Your task to perform on an android device: toggle location history Image 0: 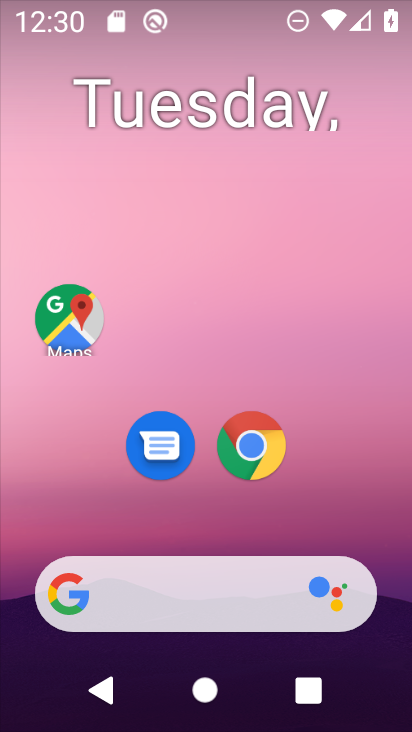
Step 0: drag from (387, 528) to (365, 238)
Your task to perform on an android device: toggle location history Image 1: 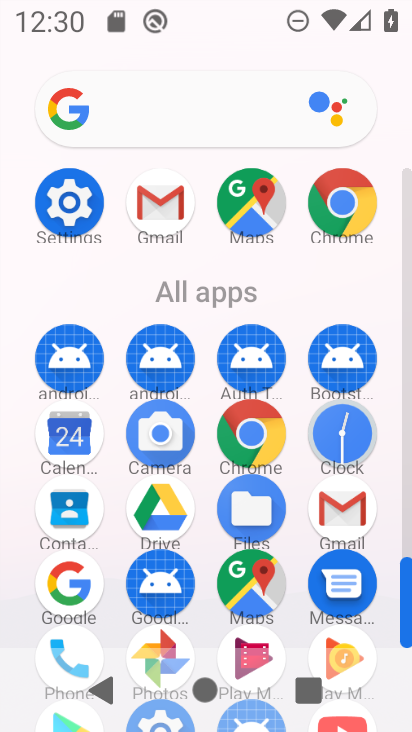
Step 1: click (82, 210)
Your task to perform on an android device: toggle location history Image 2: 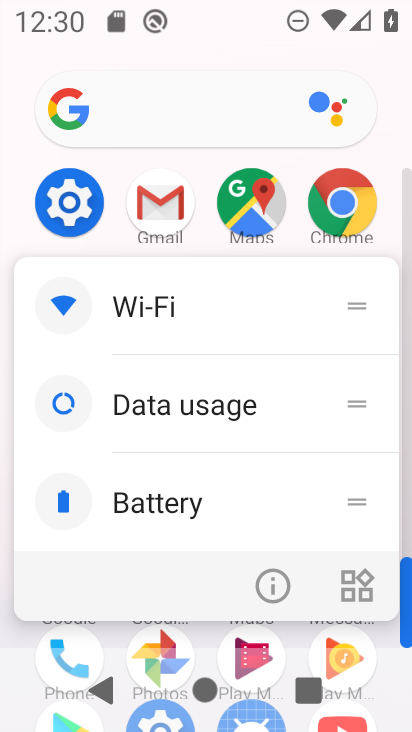
Step 2: click (82, 210)
Your task to perform on an android device: toggle location history Image 3: 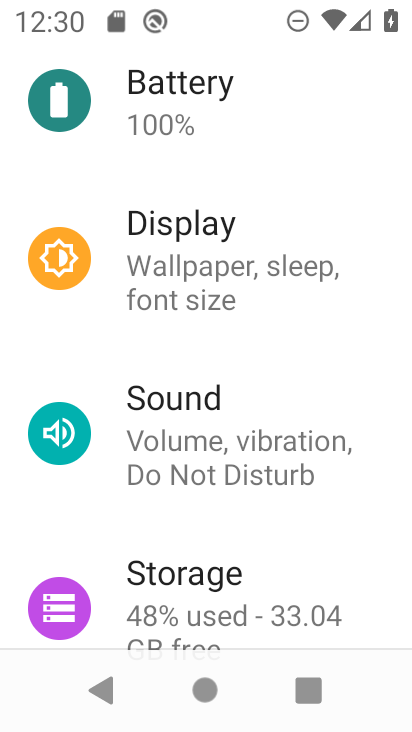
Step 3: drag from (362, 211) to (375, 395)
Your task to perform on an android device: toggle location history Image 4: 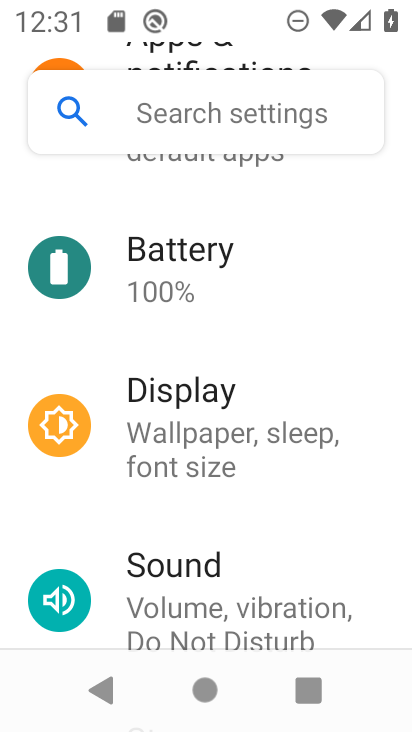
Step 4: drag from (364, 530) to (355, 338)
Your task to perform on an android device: toggle location history Image 5: 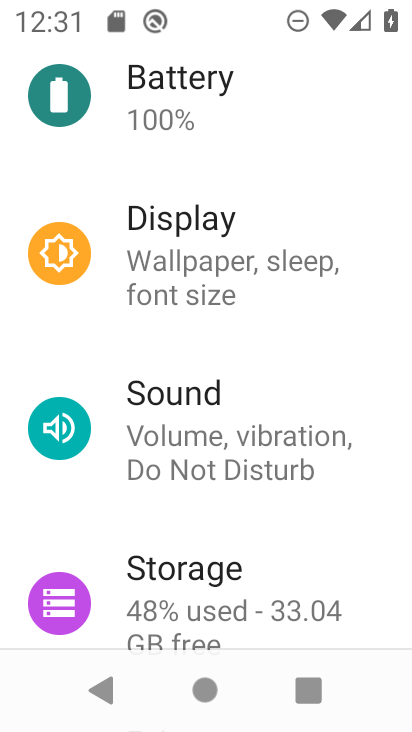
Step 5: drag from (352, 517) to (367, 374)
Your task to perform on an android device: toggle location history Image 6: 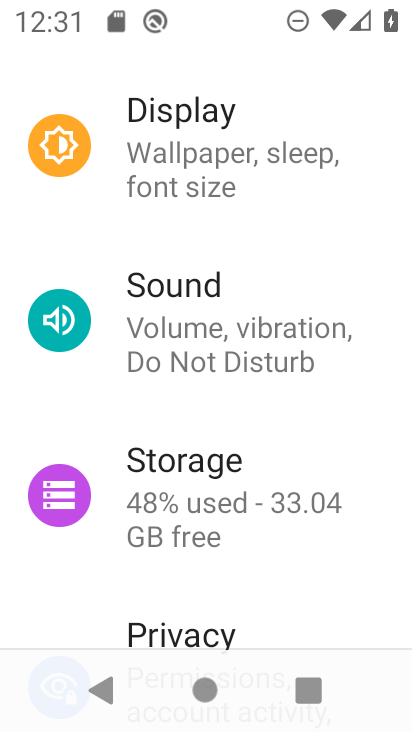
Step 6: drag from (359, 573) to (360, 412)
Your task to perform on an android device: toggle location history Image 7: 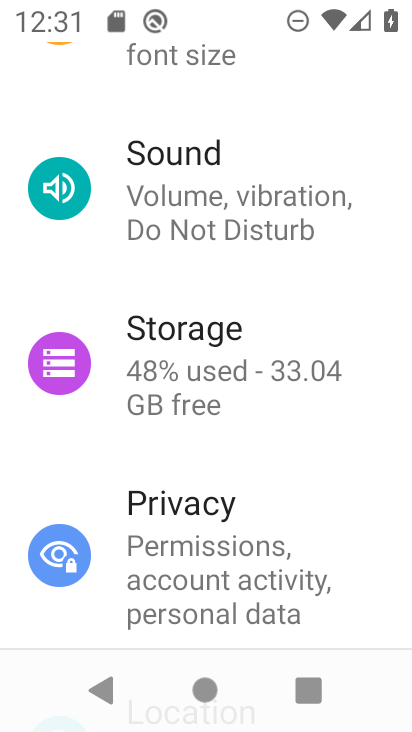
Step 7: drag from (374, 511) to (392, 345)
Your task to perform on an android device: toggle location history Image 8: 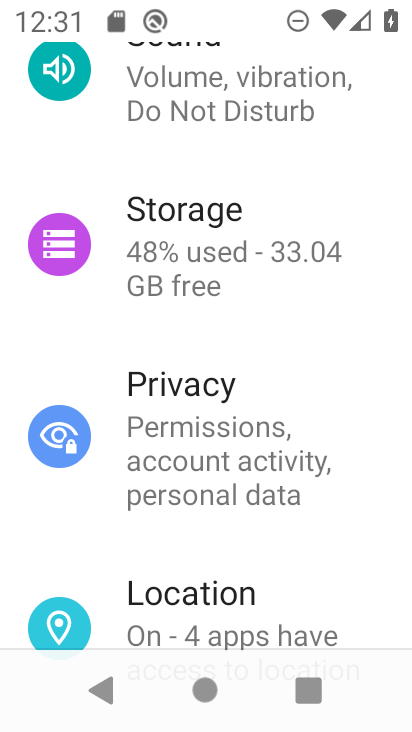
Step 8: drag from (371, 553) to (382, 370)
Your task to perform on an android device: toggle location history Image 9: 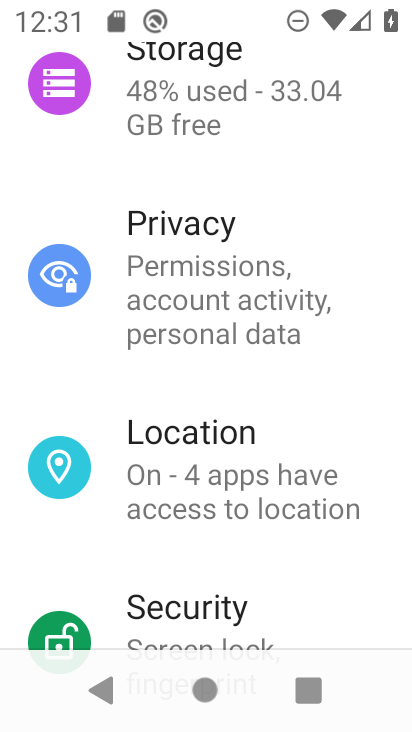
Step 9: drag from (353, 611) to (357, 378)
Your task to perform on an android device: toggle location history Image 10: 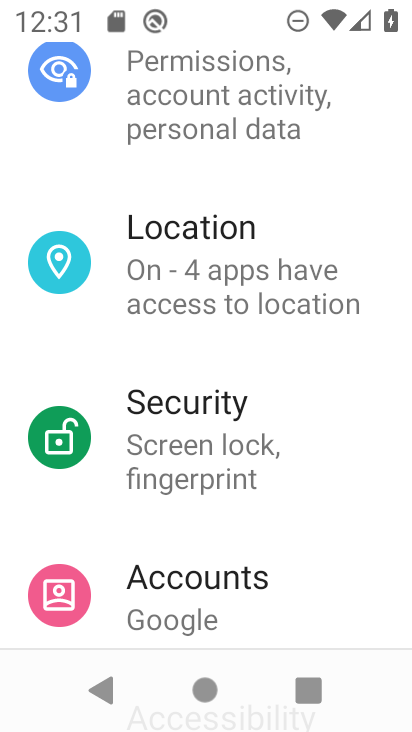
Step 10: drag from (372, 549) to (382, 355)
Your task to perform on an android device: toggle location history Image 11: 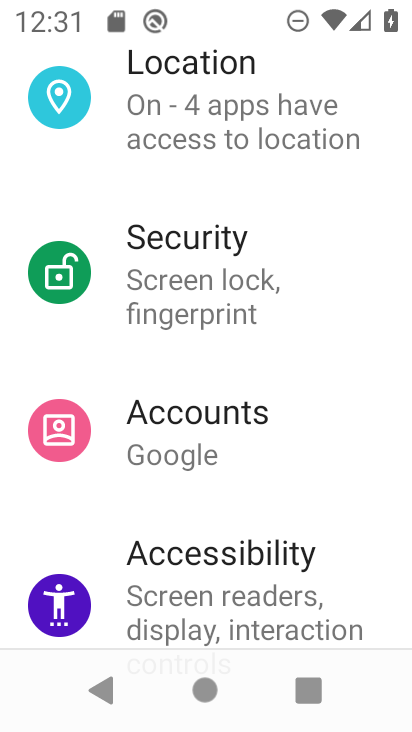
Step 11: drag from (367, 567) to (370, 368)
Your task to perform on an android device: toggle location history Image 12: 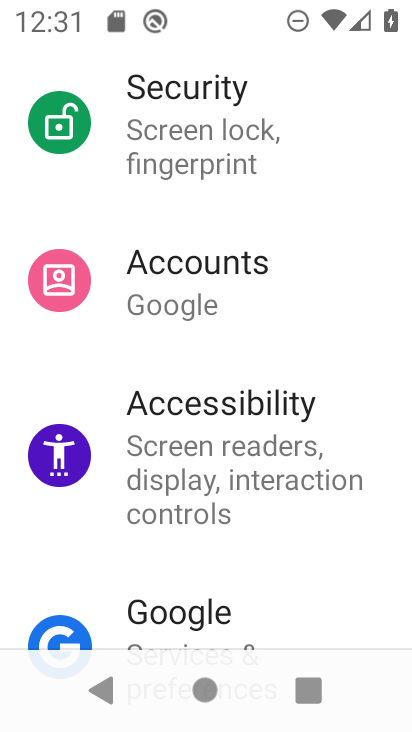
Step 12: drag from (345, 545) to (366, 366)
Your task to perform on an android device: toggle location history Image 13: 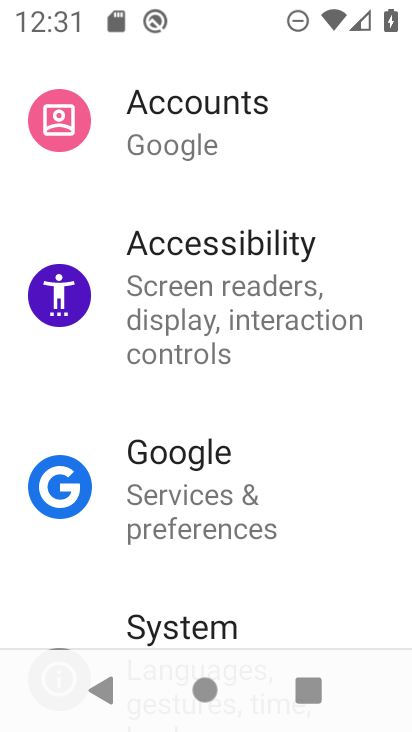
Step 13: drag from (343, 500) to (356, 343)
Your task to perform on an android device: toggle location history Image 14: 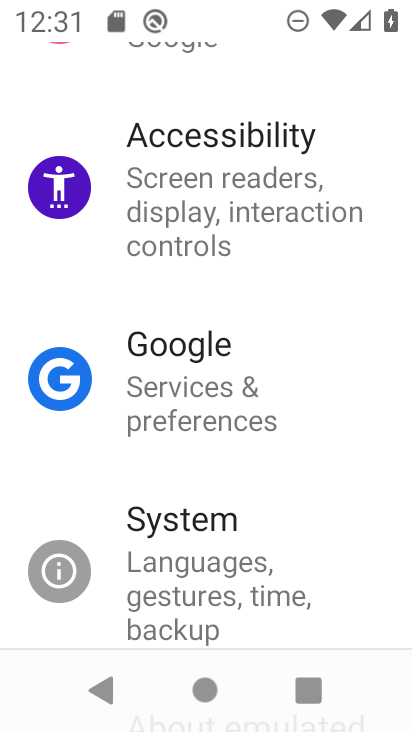
Step 14: drag from (341, 556) to (353, 400)
Your task to perform on an android device: toggle location history Image 15: 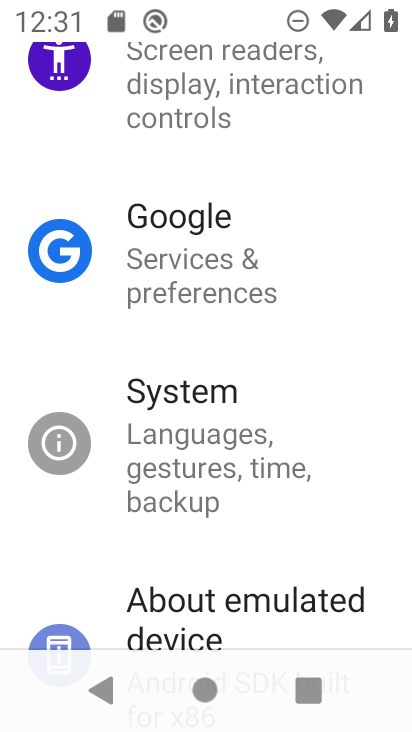
Step 15: drag from (343, 500) to (349, 335)
Your task to perform on an android device: toggle location history Image 16: 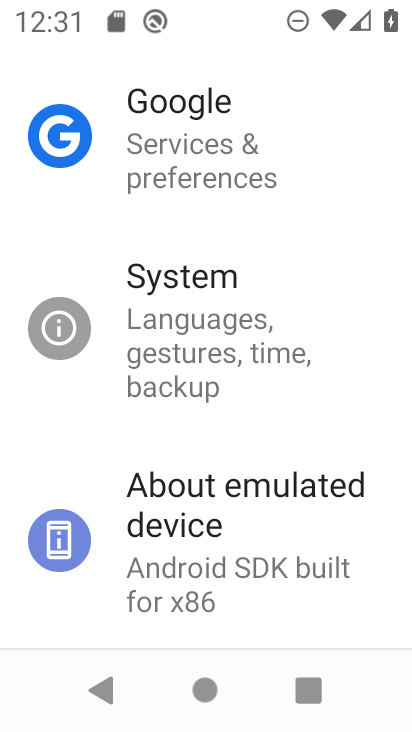
Step 16: drag from (353, 596) to (356, 350)
Your task to perform on an android device: toggle location history Image 17: 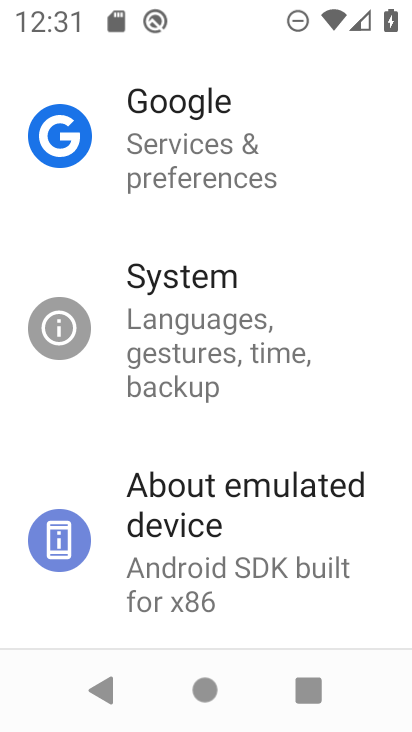
Step 17: drag from (332, 592) to (346, 332)
Your task to perform on an android device: toggle location history Image 18: 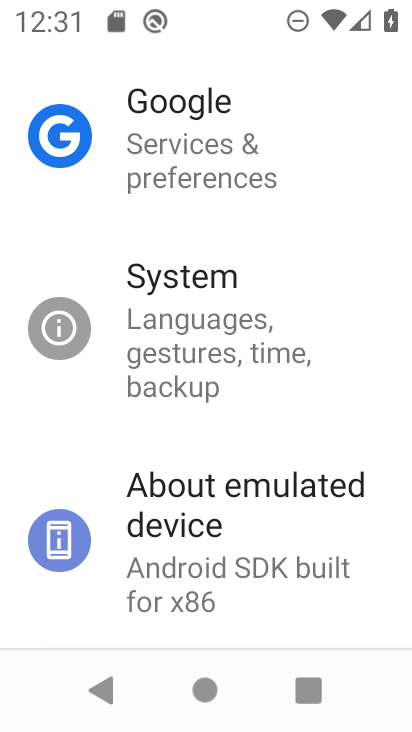
Step 18: drag from (360, 256) to (333, 471)
Your task to perform on an android device: toggle location history Image 19: 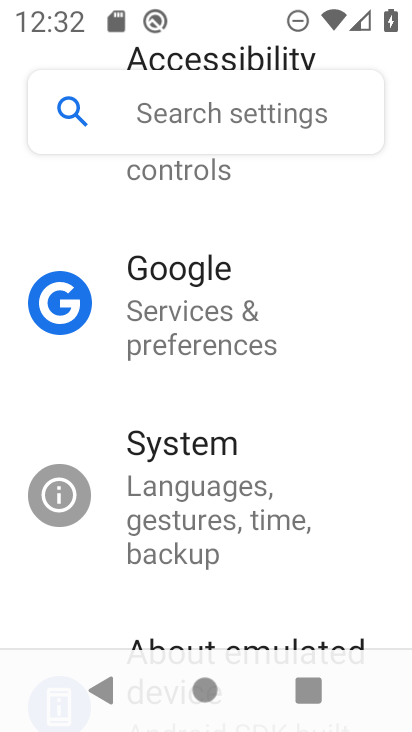
Step 19: drag from (342, 251) to (345, 456)
Your task to perform on an android device: toggle location history Image 20: 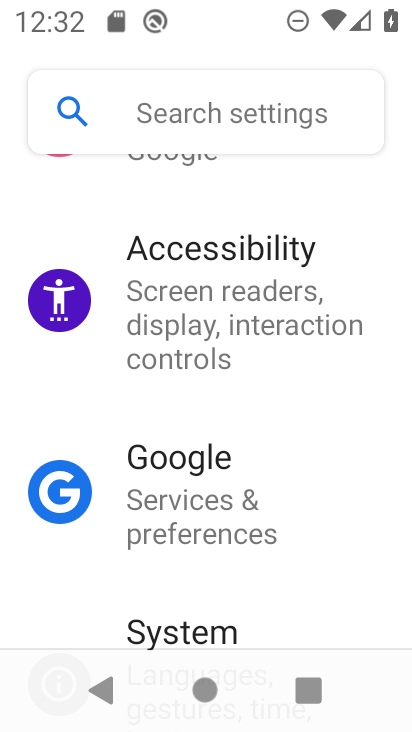
Step 20: drag from (383, 253) to (378, 450)
Your task to perform on an android device: toggle location history Image 21: 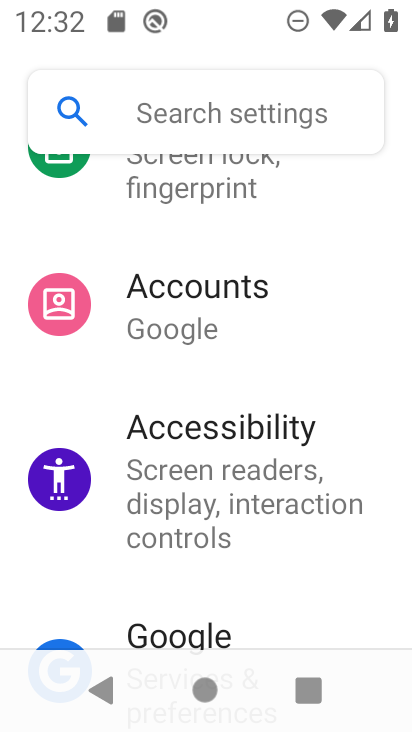
Step 21: drag from (381, 279) to (363, 474)
Your task to perform on an android device: toggle location history Image 22: 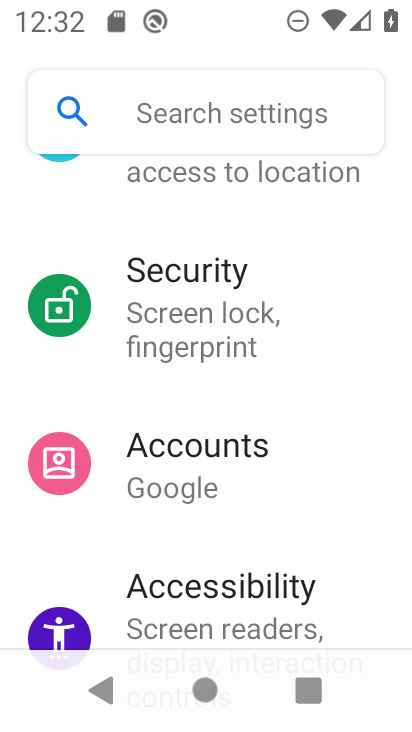
Step 22: drag from (370, 263) to (361, 453)
Your task to perform on an android device: toggle location history Image 23: 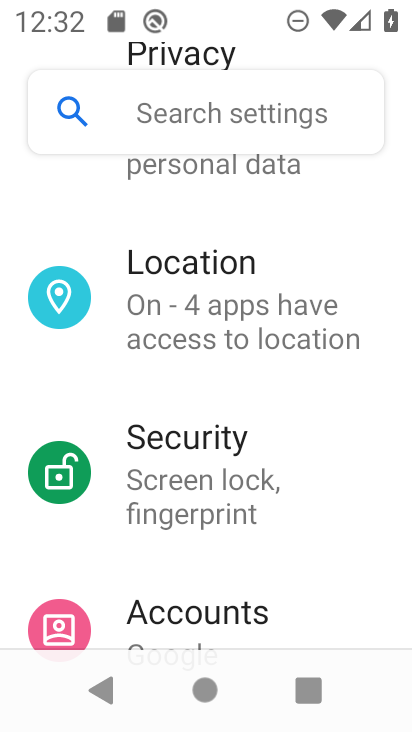
Step 23: drag from (373, 267) to (349, 491)
Your task to perform on an android device: toggle location history Image 24: 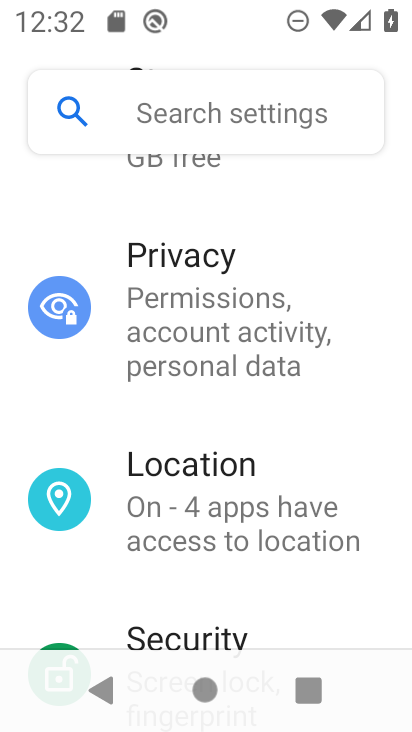
Step 24: drag from (381, 266) to (364, 473)
Your task to perform on an android device: toggle location history Image 25: 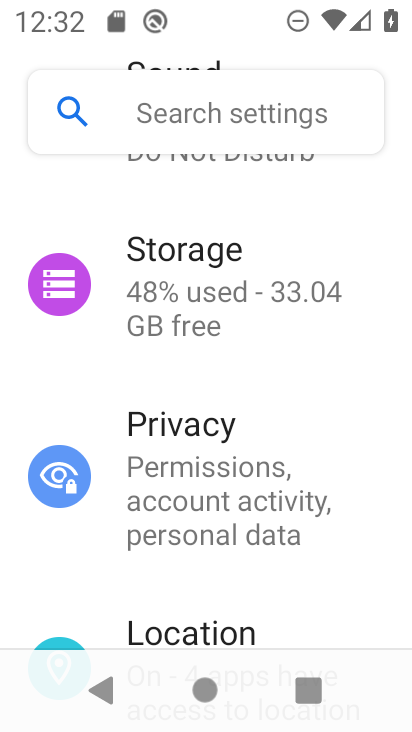
Step 25: drag from (353, 253) to (354, 464)
Your task to perform on an android device: toggle location history Image 26: 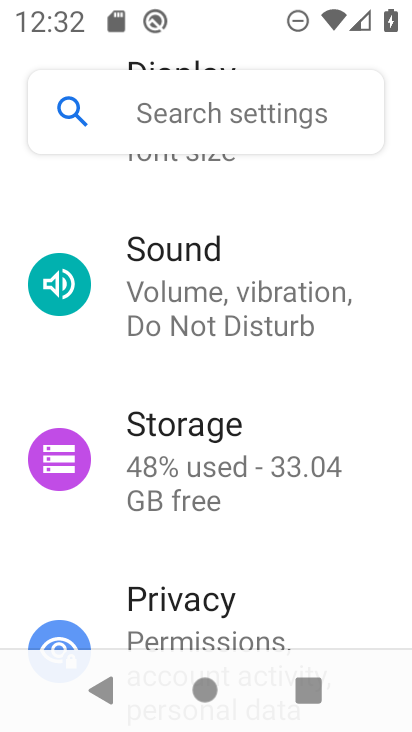
Step 26: drag from (353, 226) to (341, 413)
Your task to perform on an android device: toggle location history Image 27: 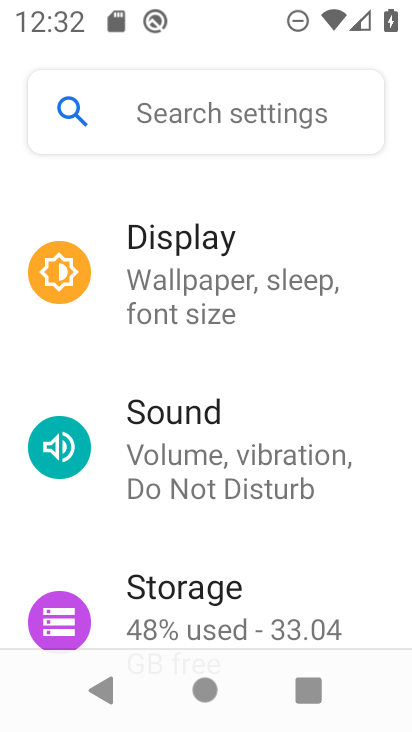
Step 27: drag from (349, 232) to (345, 424)
Your task to perform on an android device: toggle location history Image 28: 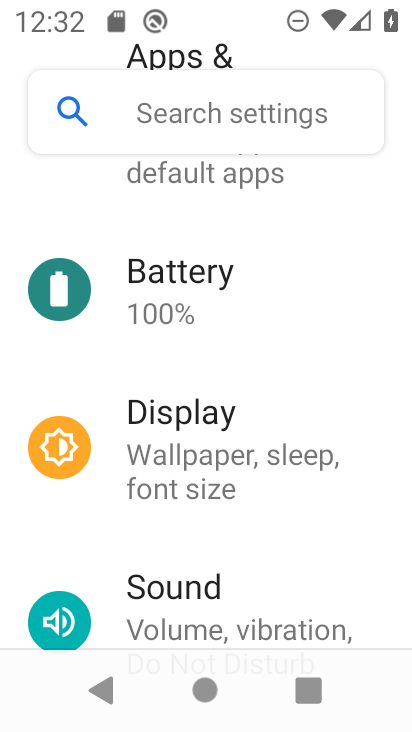
Step 28: drag from (356, 285) to (320, 509)
Your task to perform on an android device: toggle location history Image 29: 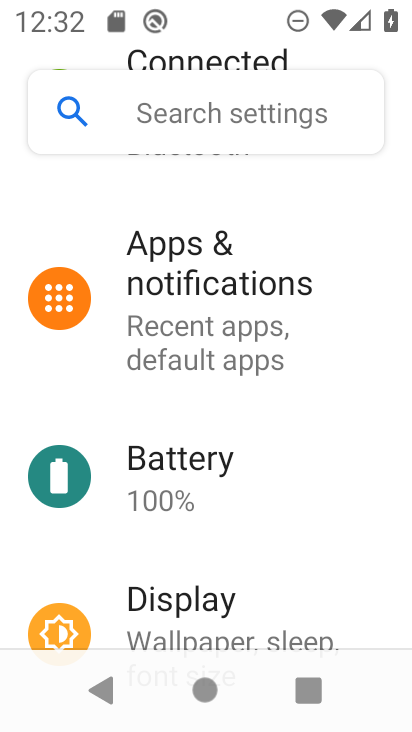
Step 29: drag from (373, 273) to (367, 460)
Your task to perform on an android device: toggle location history Image 30: 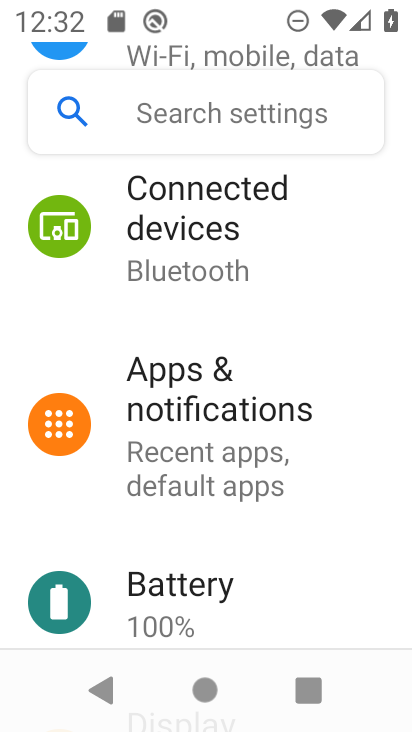
Step 30: drag from (341, 276) to (323, 463)
Your task to perform on an android device: toggle location history Image 31: 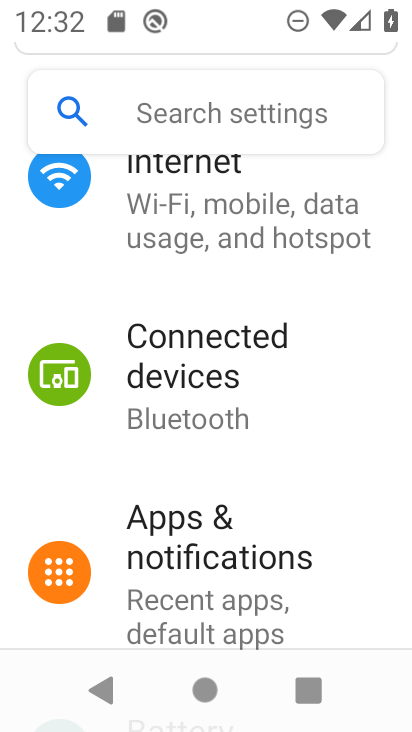
Step 31: drag from (342, 300) to (337, 476)
Your task to perform on an android device: toggle location history Image 32: 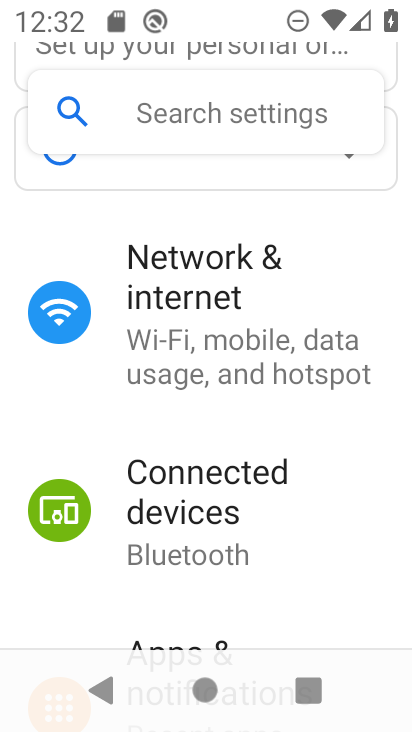
Step 32: drag from (349, 554) to (377, 336)
Your task to perform on an android device: toggle location history Image 33: 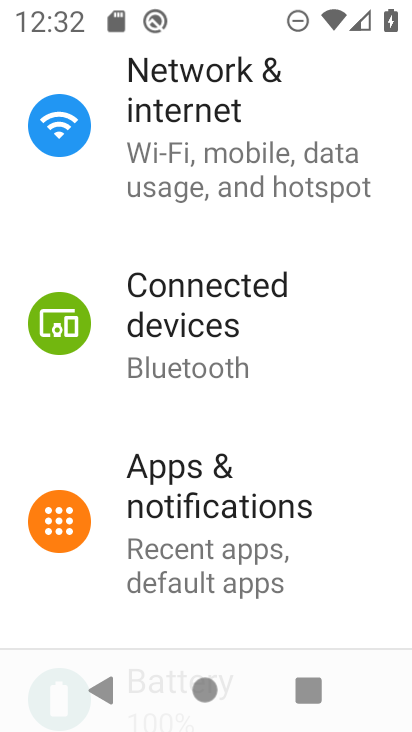
Step 33: drag from (363, 608) to (351, 409)
Your task to perform on an android device: toggle location history Image 34: 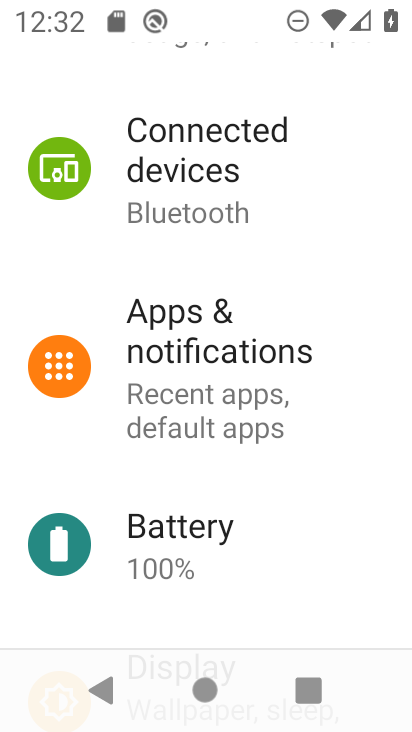
Step 34: drag from (362, 583) to (351, 335)
Your task to perform on an android device: toggle location history Image 35: 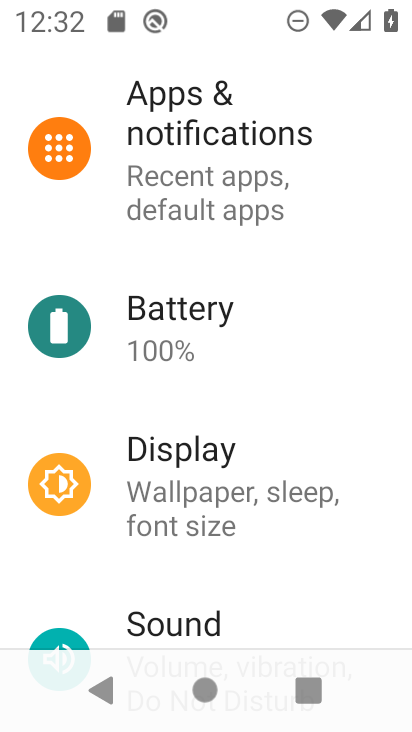
Step 35: drag from (346, 559) to (347, 356)
Your task to perform on an android device: toggle location history Image 36: 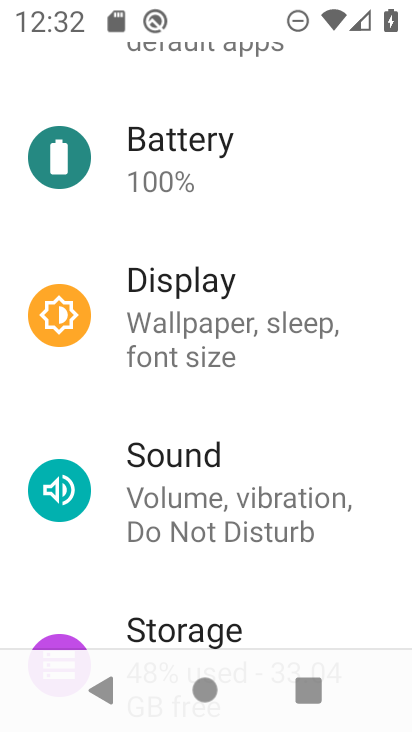
Step 36: drag from (340, 589) to (348, 335)
Your task to perform on an android device: toggle location history Image 37: 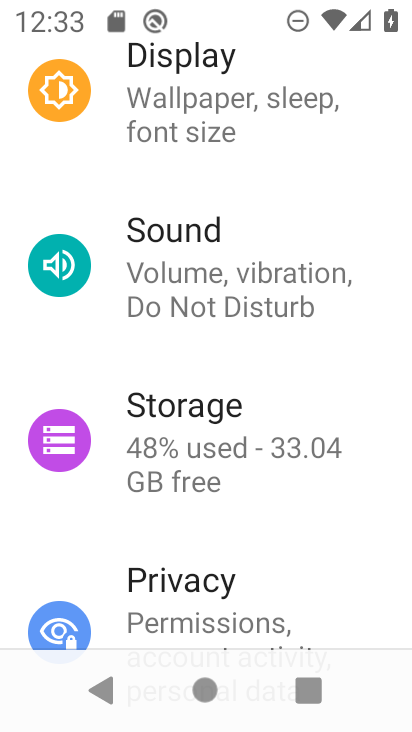
Step 37: drag from (316, 547) to (332, 335)
Your task to perform on an android device: toggle location history Image 38: 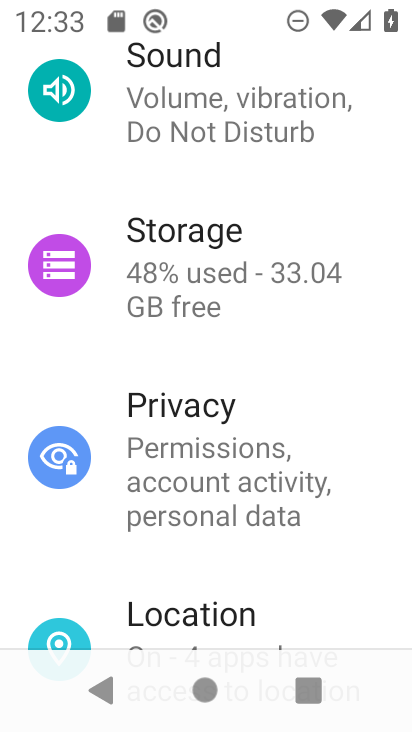
Step 38: drag from (342, 591) to (346, 413)
Your task to perform on an android device: toggle location history Image 39: 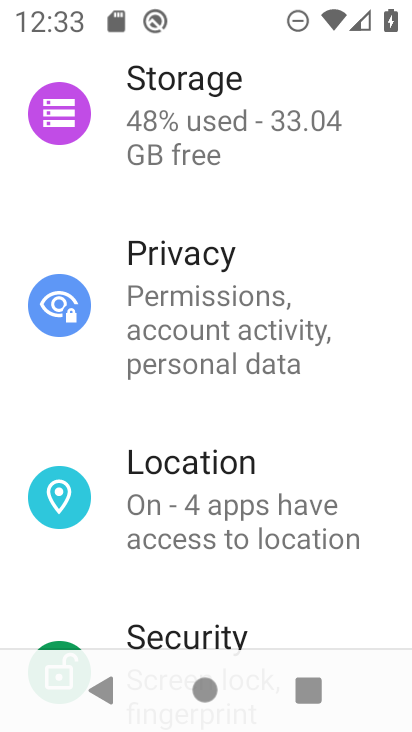
Step 39: click (307, 513)
Your task to perform on an android device: toggle location history Image 40: 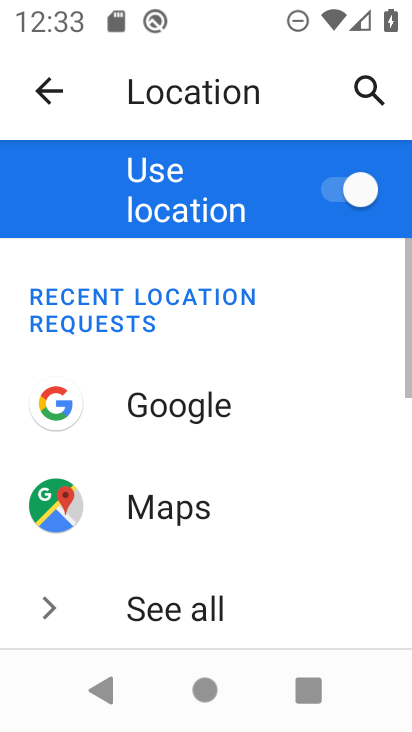
Step 40: drag from (307, 563) to (297, 352)
Your task to perform on an android device: toggle location history Image 41: 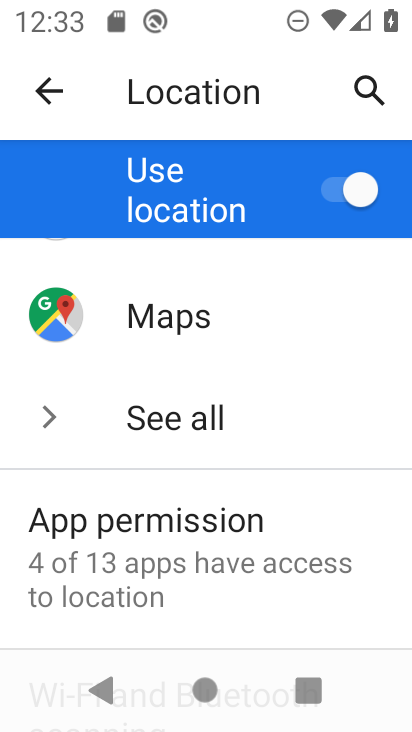
Step 41: drag from (306, 602) to (305, 445)
Your task to perform on an android device: toggle location history Image 42: 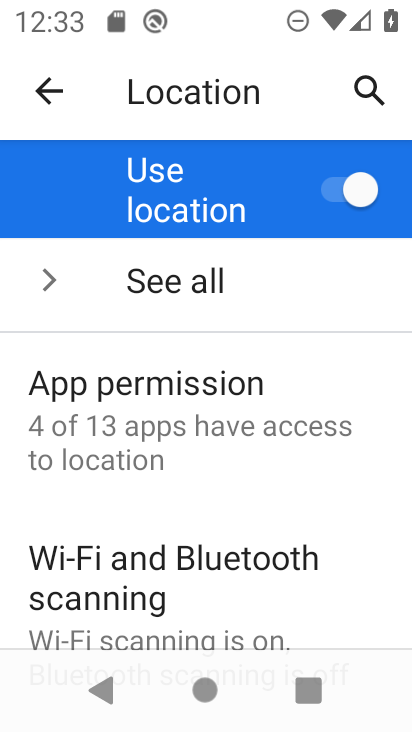
Step 42: drag from (349, 609) to (345, 505)
Your task to perform on an android device: toggle location history Image 43: 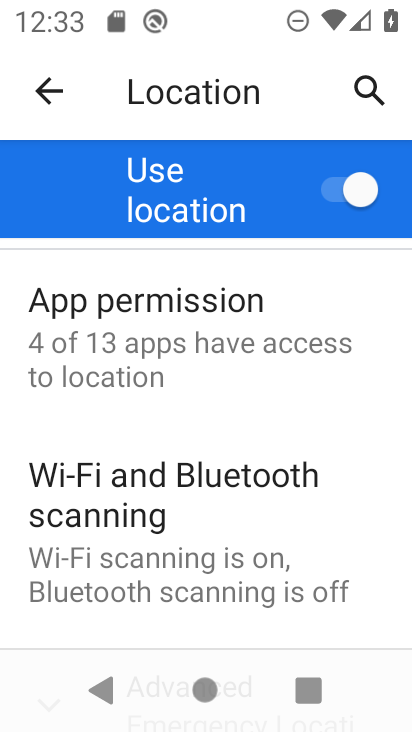
Step 43: drag from (344, 588) to (346, 403)
Your task to perform on an android device: toggle location history Image 44: 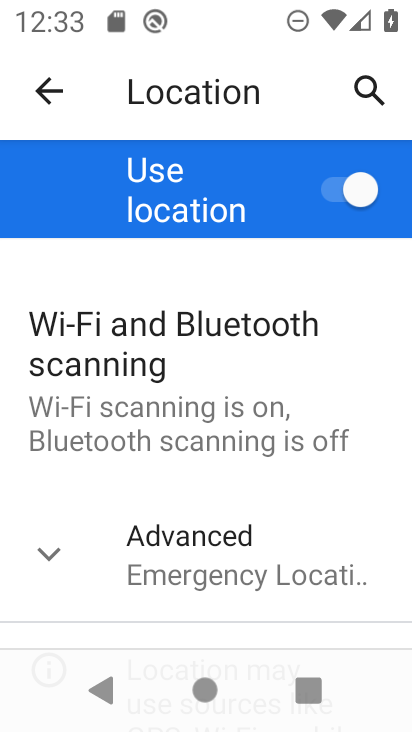
Step 44: click (296, 566)
Your task to perform on an android device: toggle location history Image 45: 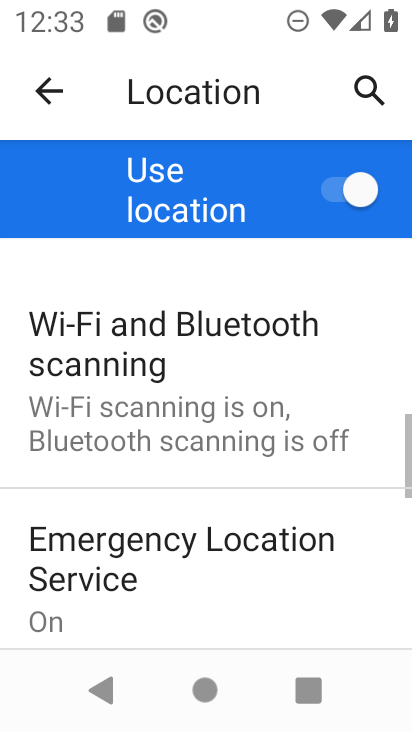
Step 45: drag from (292, 582) to (292, 409)
Your task to perform on an android device: toggle location history Image 46: 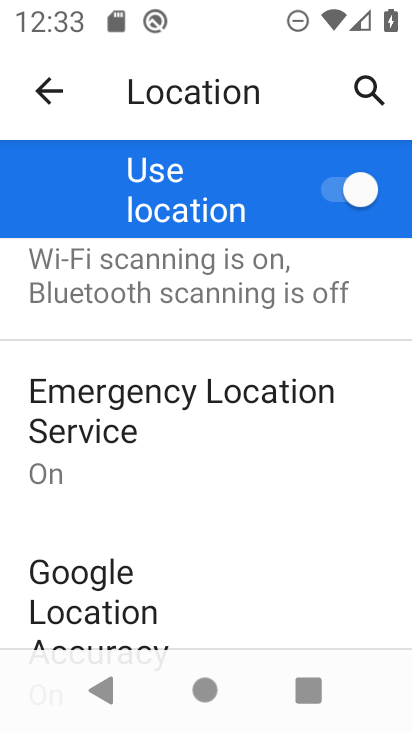
Step 46: drag from (298, 594) to (316, 440)
Your task to perform on an android device: toggle location history Image 47: 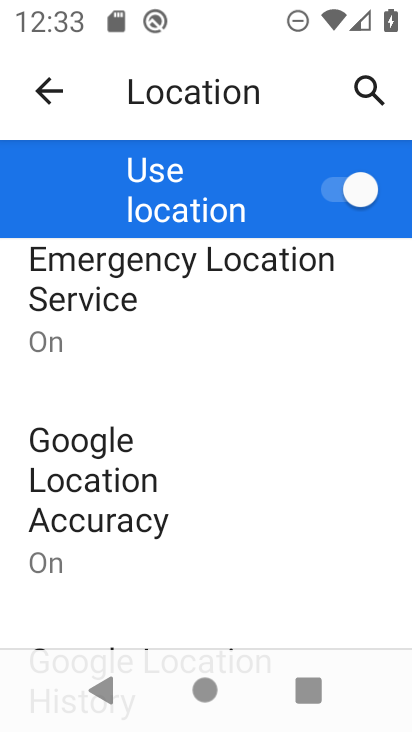
Step 47: drag from (286, 560) to (305, 338)
Your task to perform on an android device: toggle location history Image 48: 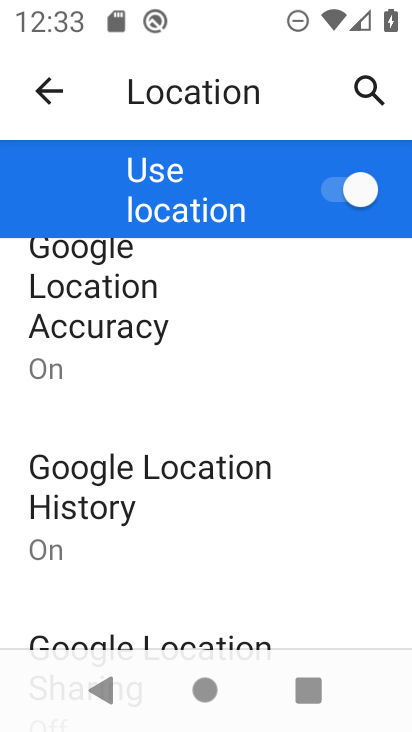
Step 48: click (111, 510)
Your task to perform on an android device: toggle location history Image 49: 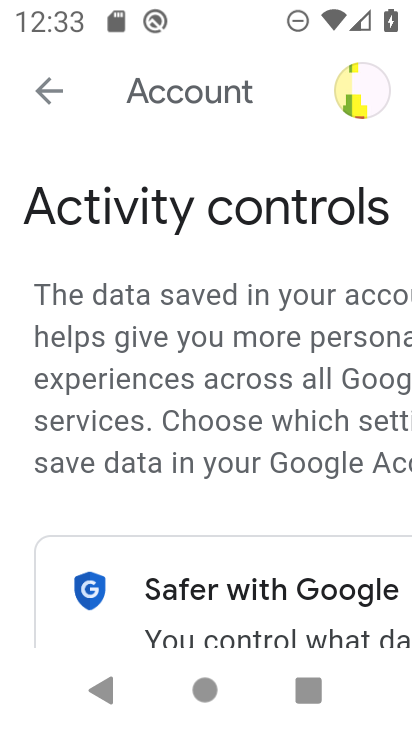
Step 49: drag from (282, 573) to (300, 371)
Your task to perform on an android device: toggle location history Image 50: 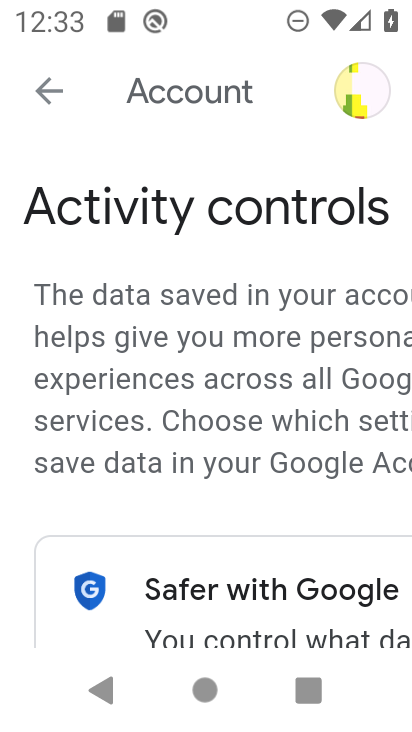
Step 50: drag from (285, 584) to (290, 353)
Your task to perform on an android device: toggle location history Image 51: 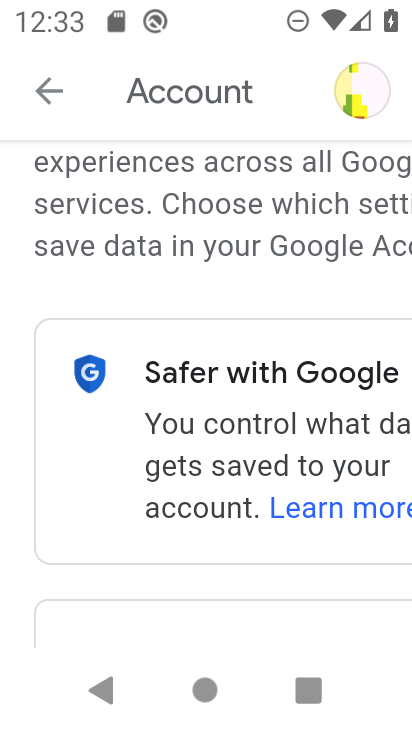
Step 51: drag from (283, 565) to (278, 374)
Your task to perform on an android device: toggle location history Image 52: 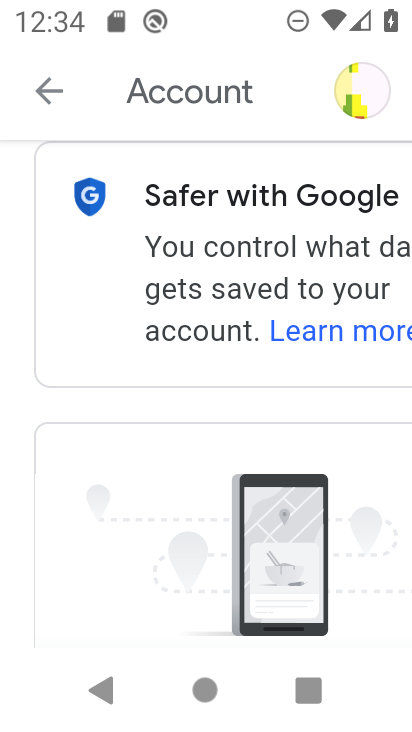
Step 52: drag from (256, 600) to (272, 397)
Your task to perform on an android device: toggle location history Image 53: 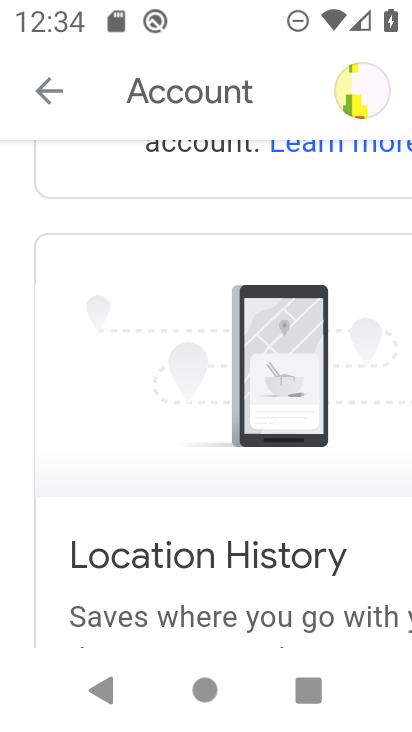
Step 53: drag from (265, 563) to (284, 345)
Your task to perform on an android device: toggle location history Image 54: 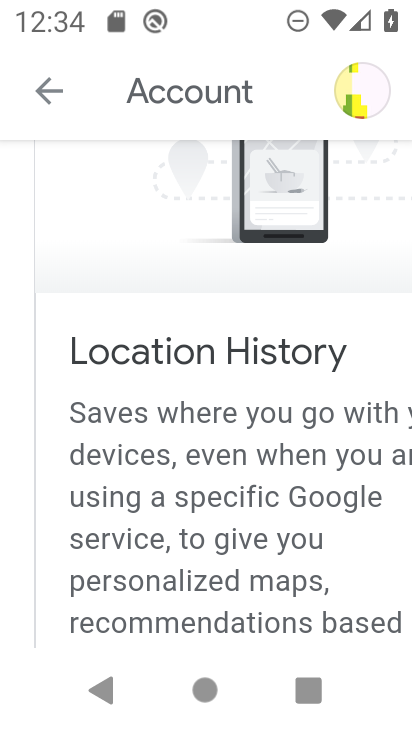
Step 54: drag from (304, 559) to (327, 391)
Your task to perform on an android device: toggle location history Image 55: 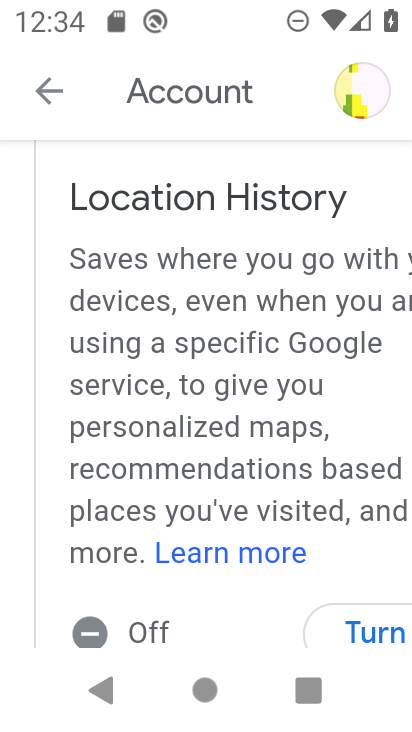
Step 55: drag from (304, 523) to (289, 418)
Your task to perform on an android device: toggle location history Image 56: 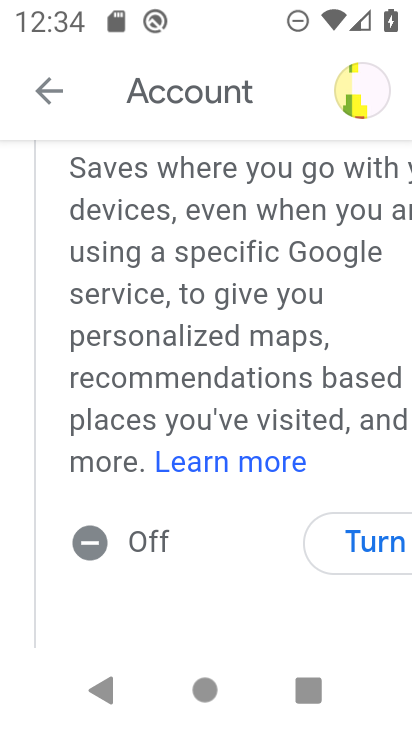
Step 56: click (355, 546)
Your task to perform on an android device: toggle location history Image 57: 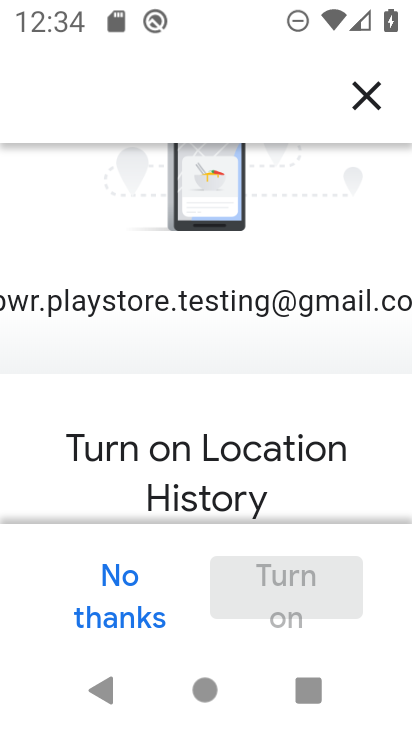
Step 57: drag from (333, 496) to (331, 386)
Your task to perform on an android device: toggle location history Image 58: 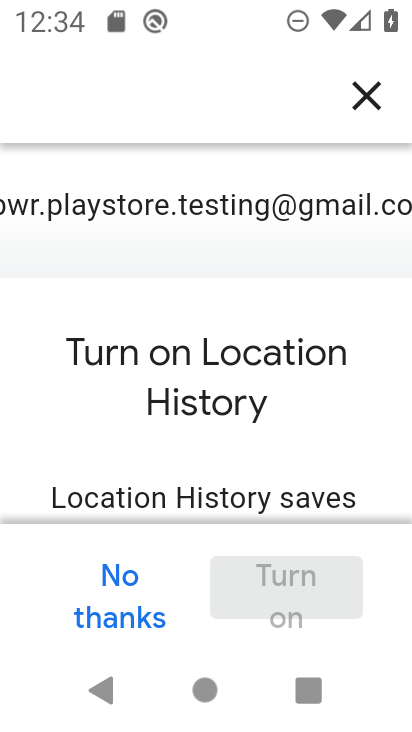
Step 58: drag from (343, 454) to (341, 298)
Your task to perform on an android device: toggle location history Image 59: 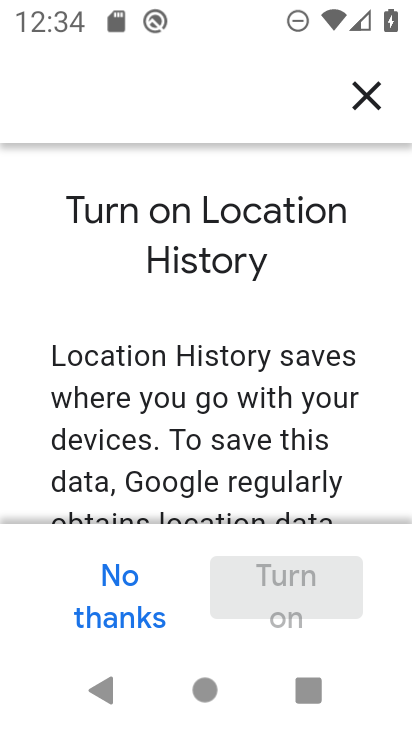
Step 59: drag from (364, 481) to (364, 324)
Your task to perform on an android device: toggle location history Image 60: 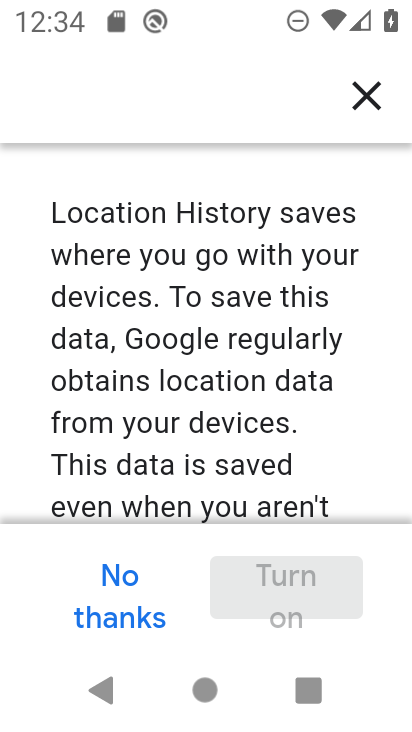
Step 60: drag from (350, 476) to (341, 334)
Your task to perform on an android device: toggle location history Image 61: 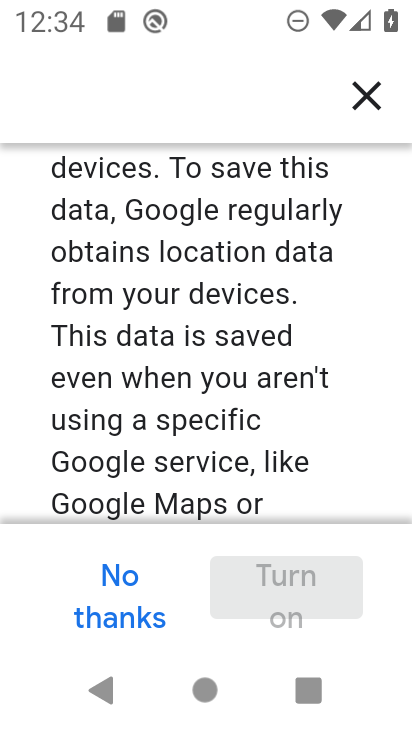
Step 61: drag from (345, 473) to (353, 291)
Your task to perform on an android device: toggle location history Image 62: 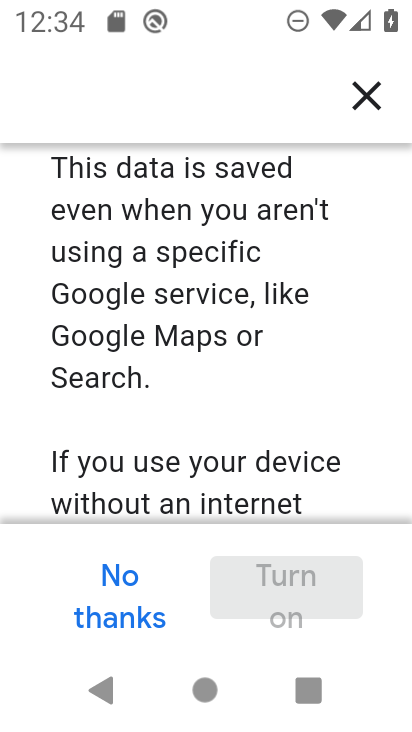
Step 62: drag from (349, 400) to (369, 237)
Your task to perform on an android device: toggle location history Image 63: 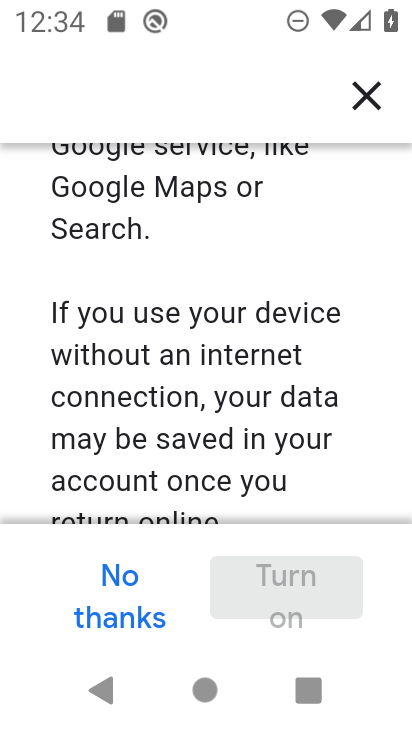
Step 63: drag from (353, 454) to (349, 330)
Your task to perform on an android device: toggle location history Image 64: 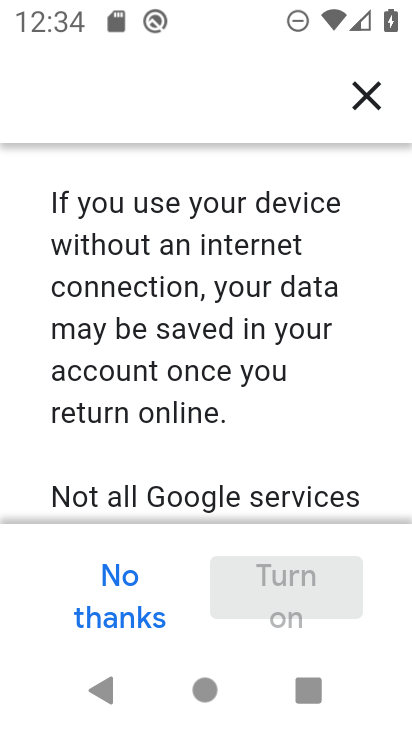
Step 64: drag from (336, 446) to (358, 310)
Your task to perform on an android device: toggle location history Image 65: 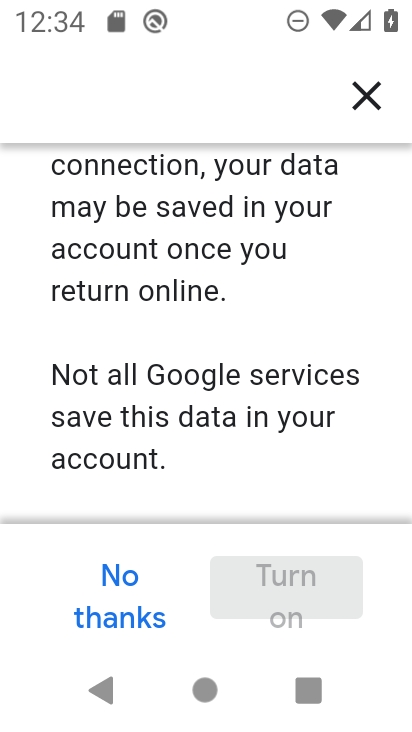
Step 65: drag from (367, 465) to (382, 326)
Your task to perform on an android device: toggle location history Image 66: 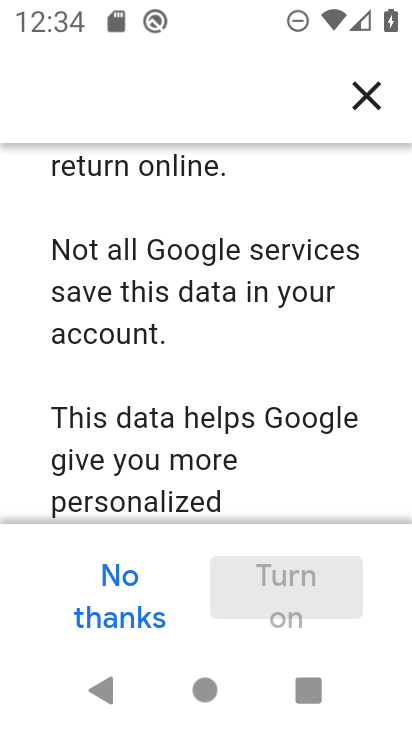
Step 66: drag from (365, 475) to (380, 359)
Your task to perform on an android device: toggle location history Image 67: 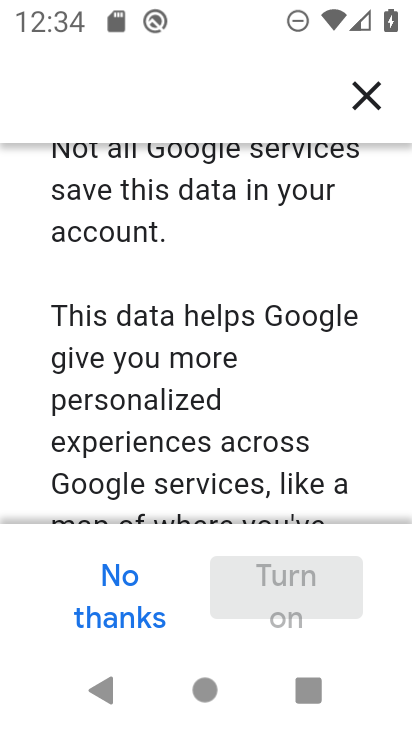
Step 67: drag from (390, 468) to (383, 297)
Your task to perform on an android device: toggle location history Image 68: 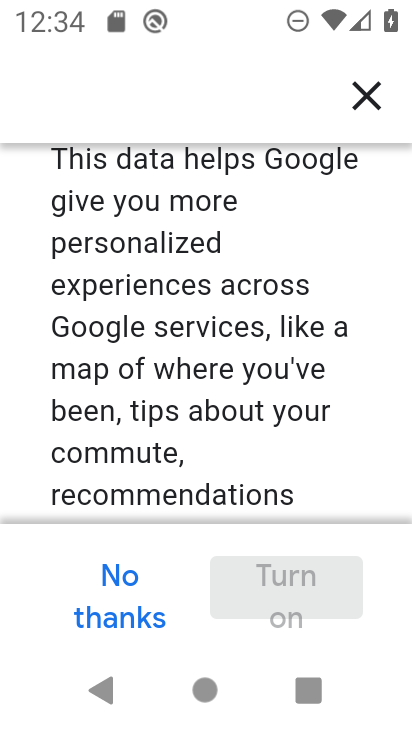
Step 68: drag from (356, 456) to (369, 295)
Your task to perform on an android device: toggle location history Image 69: 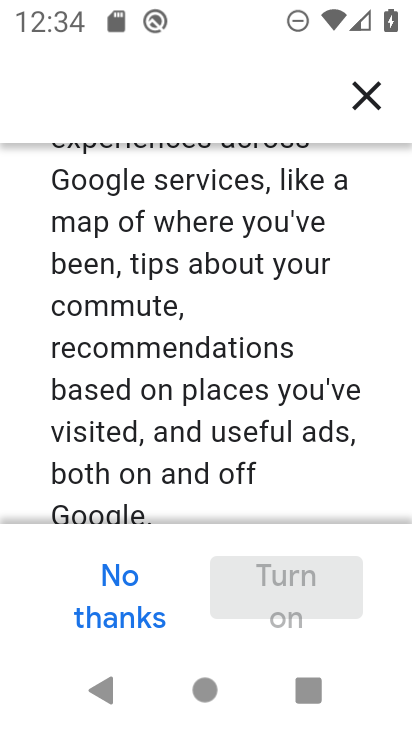
Step 69: drag from (346, 473) to (346, 331)
Your task to perform on an android device: toggle location history Image 70: 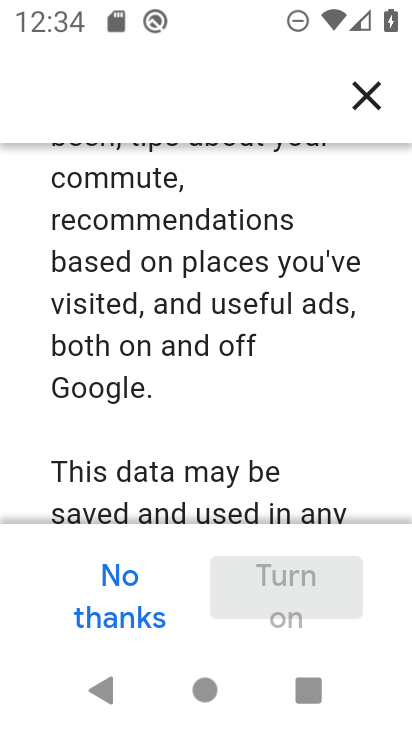
Step 70: drag from (348, 456) to (337, 305)
Your task to perform on an android device: toggle location history Image 71: 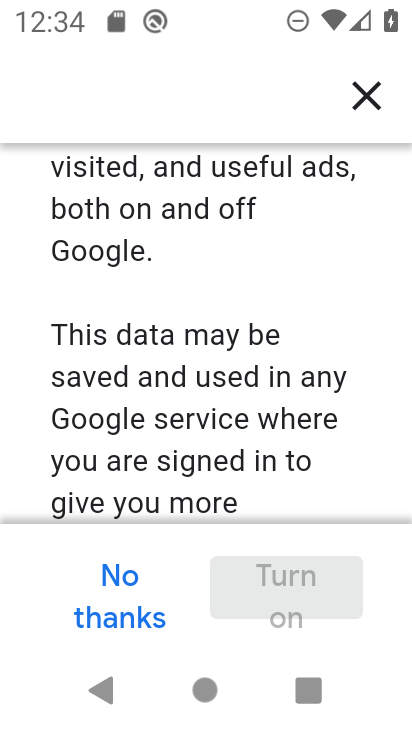
Step 71: drag from (358, 487) to (355, 299)
Your task to perform on an android device: toggle location history Image 72: 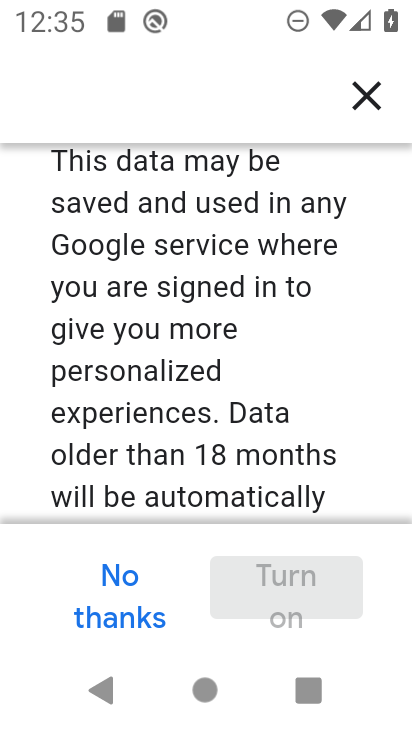
Step 72: drag from (347, 472) to (367, 373)
Your task to perform on an android device: toggle location history Image 73: 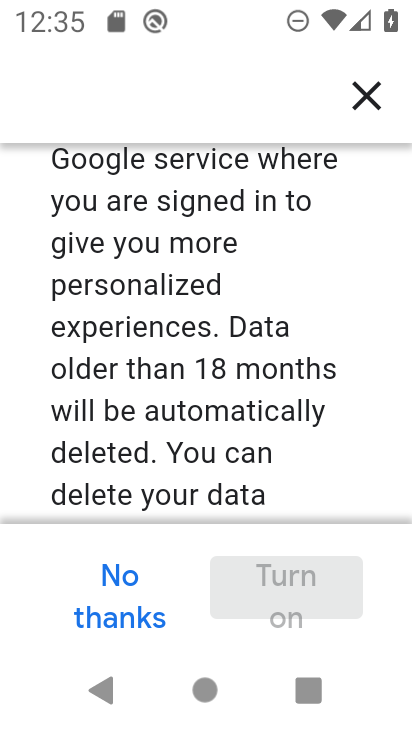
Step 73: drag from (357, 422) to (373, 324)
Your task to perform on an android device: toggle location history Image 74: 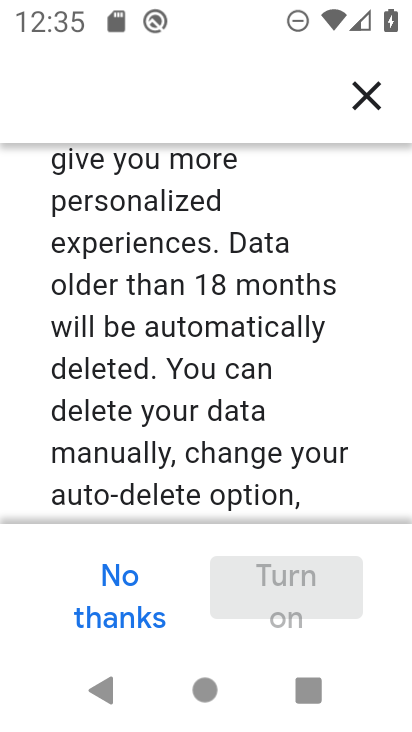
Step 74: drag from (383, 442) to (386, 289)
Your task to perform on an android device: toggle location history Image 75: 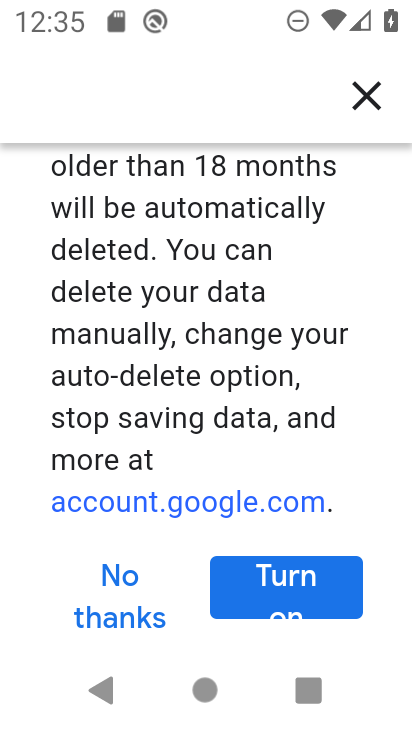
Step 75: click (327, 580)
Your task to perform on an android device: toggle location history Image 76: 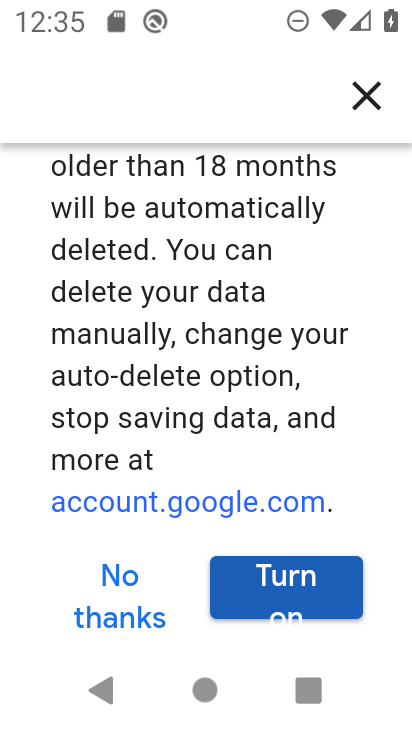
Step 76: drag from (362, 465) to (402, 338)
Your task to perform on an android device: toggle location history Image 77: 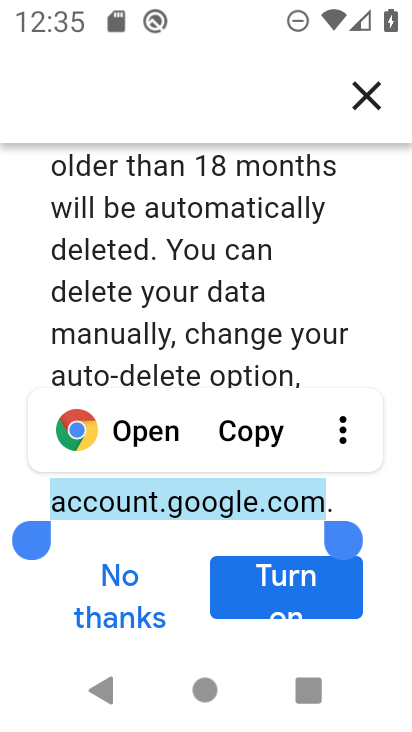
Step 77: drag from (380, 495) to (371, 310)
Your task to perform on an android device: toggle location history Image 78: 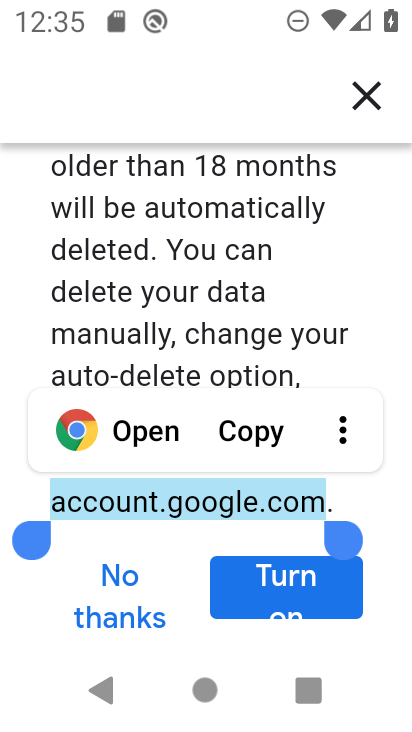
Step 78: click (286, 591)
Your task to perform on an android device: toggle location history Image 79: 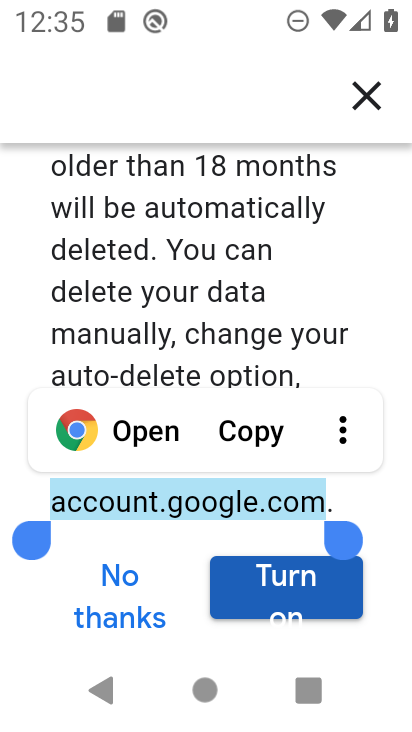
Step 79: click (286, 591)
Your task to perform on an android device: toggle location history Image 80: 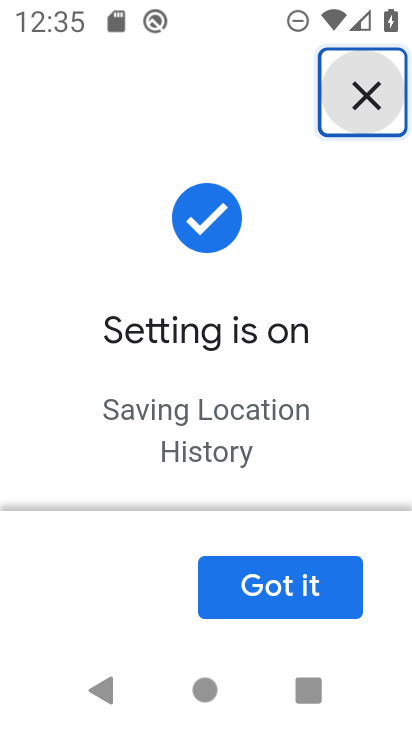
Step 80: task complete